Your task to perform on an android device: What's on my calendar tomorrow? Image 0: 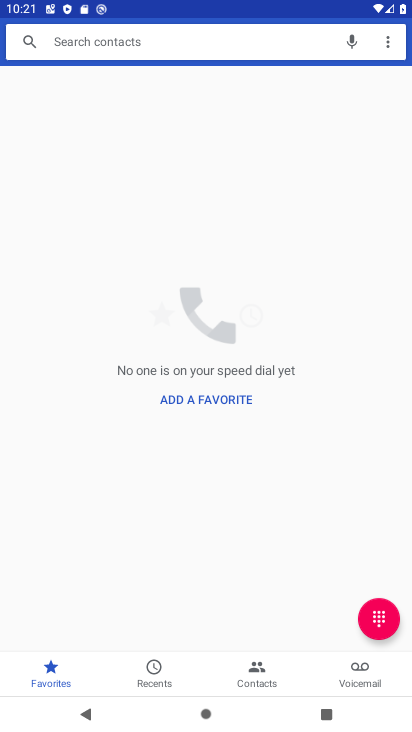
Step 0: press home button
Your task to perform on an android device: What's on my calendar tomorrow? Image 1: 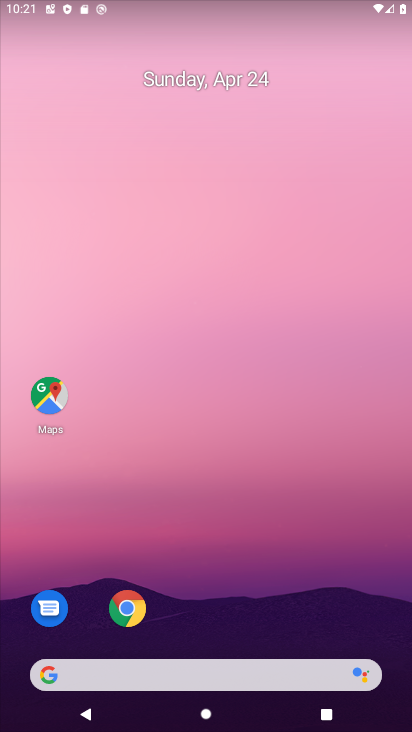
Step 1: drag from (240, 582) to (257, 116)
Your task to perform on an android device: What's on my calendar tomorrow? Image 2: 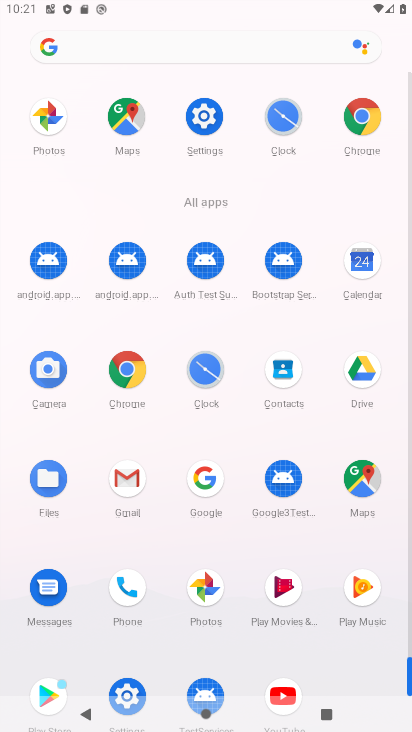
Step 2: click (365, 266)
Your task to perform on an android device: What's on my calendar tomorrow? Image 3: 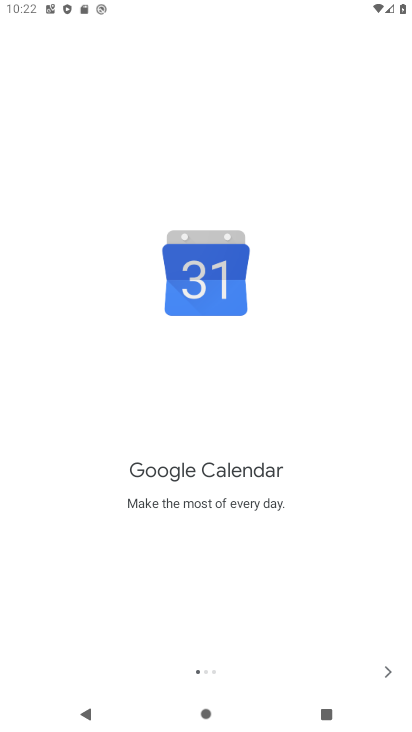
Step 3: click (386, 672)
Your task to perform on an android device: What's on my calendar tomorrow? Image 4: 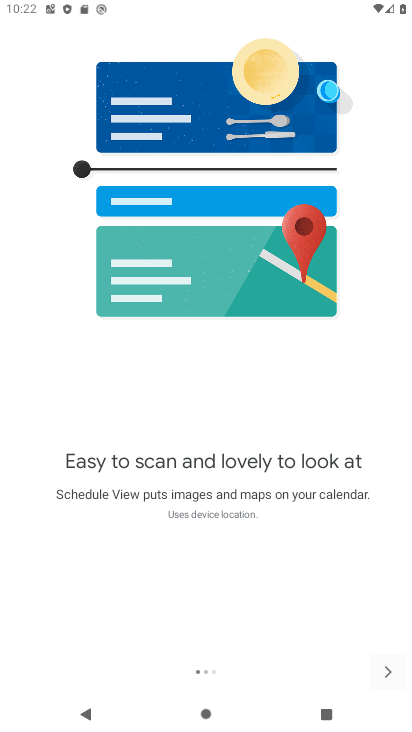
Step 4: click (386, 672)
Your task to perform on an android device: What's on my calendar tomorrow? Image 5: 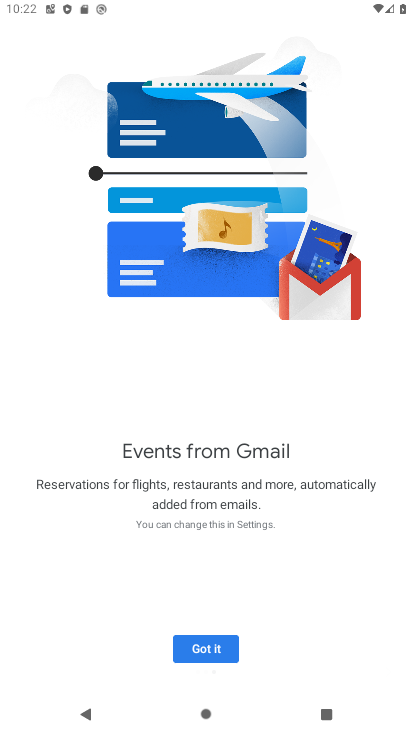
Step 5: click (386, 672)
Your task to perform on an android device: What's on my calendar tomorrow? Image 6: 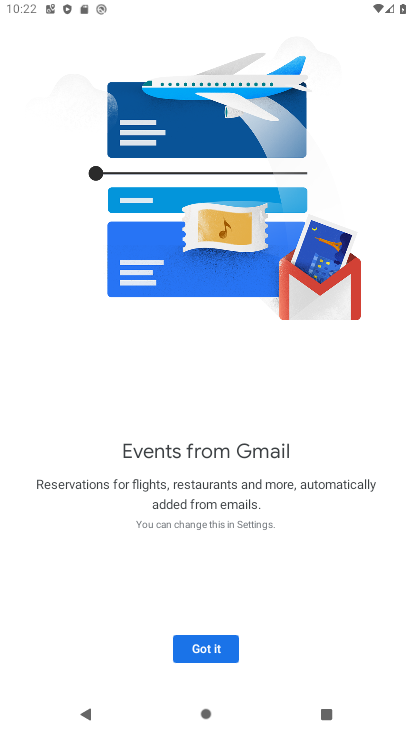
Step 6: click (228, 651)
Your task to perform on an android device: What's on my calendar tomorrow? Image 7: 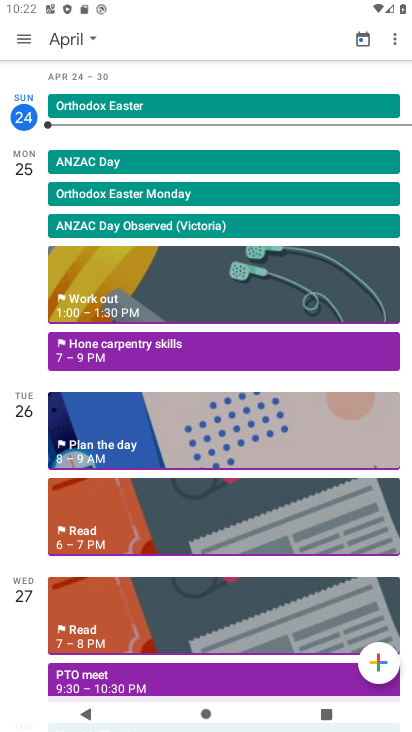
Step 7: task complete